Your task to perform on an android device: delete a single message in the gmail app Image 0: 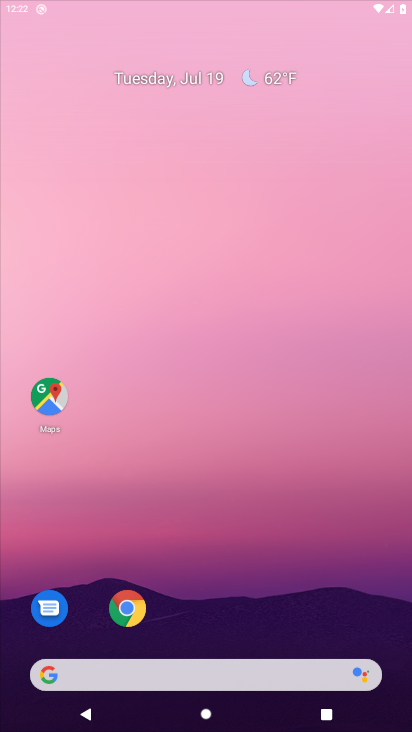
Step 0: press home button
Your task to perform on an android device: delete a single message in the gmail app Image 1: 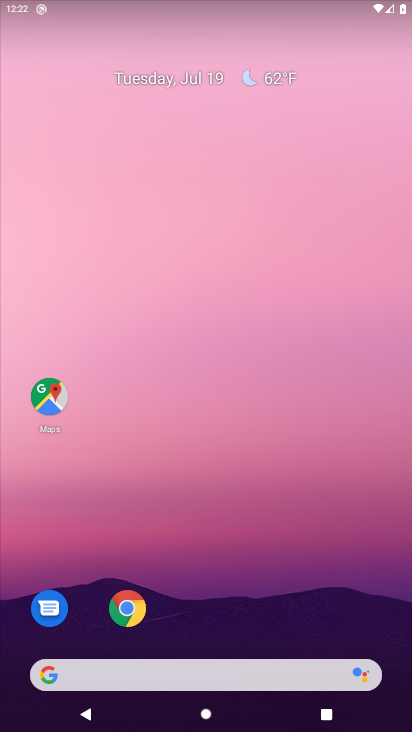
Step 1: drag from (214, 641) to (242, 7)
Your task to perform on an android device: delete a single message in the gmail app Image 2: 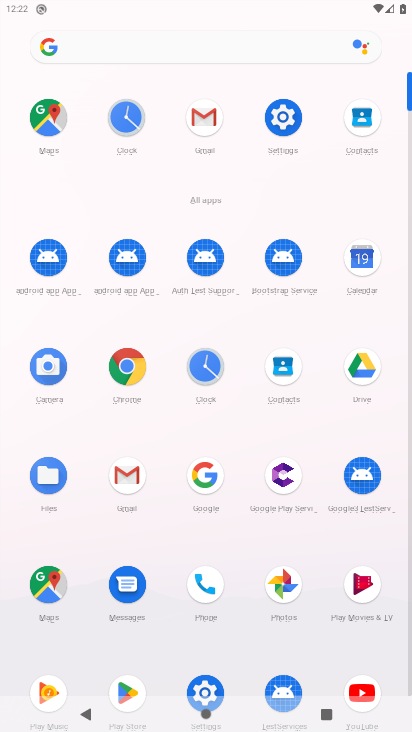
Step 2: click (128, 468)
Your task to perform on an android device: delete a single message in the gmail app Image 3: 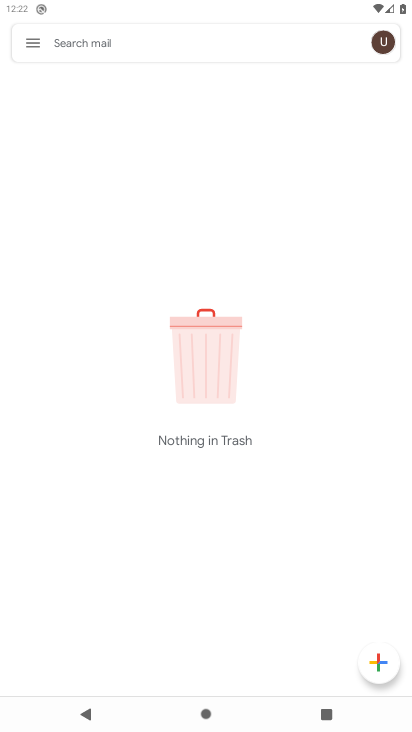
Step 3: click (26, 37)
Your task to perform on an android device: delete a single message in the gmail app Image 4: 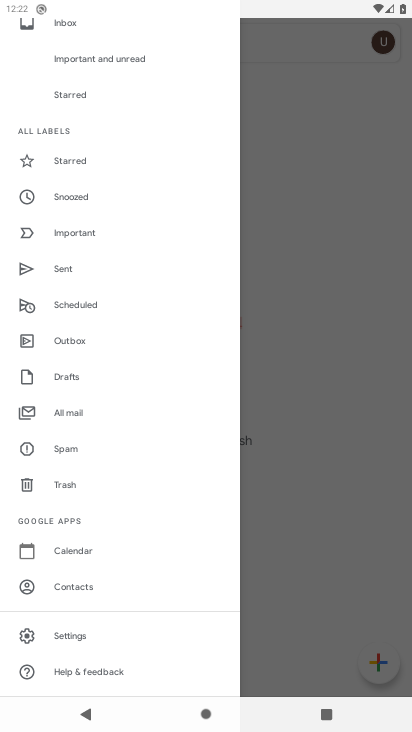
Step 4: click (75, 406)
Your task to perform on an android device: delete a single message in the gmail app Image 5: 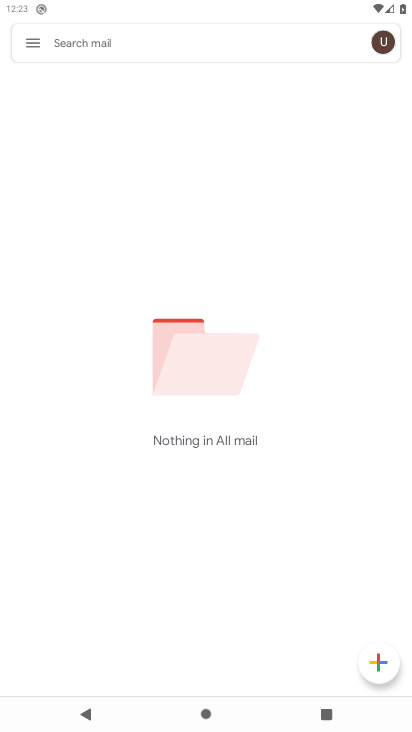
Step 5: task complete